Your task to perform on an android device: turn on javascript in the chrome app Image 0: 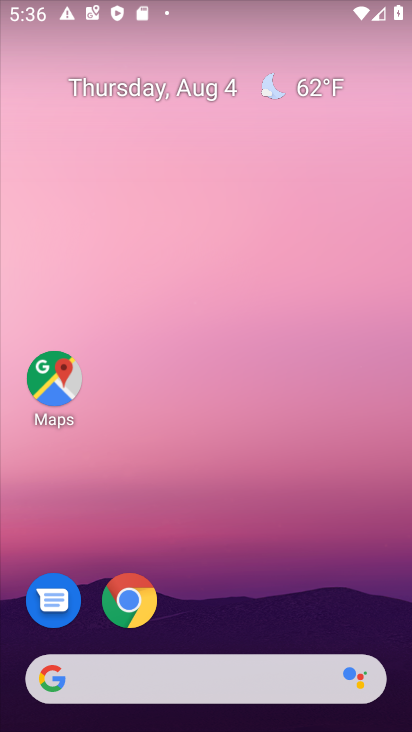
Step 0: click (124, 598)
Your task to perform on an android device: turn on javascript in the chrome app Image 1: 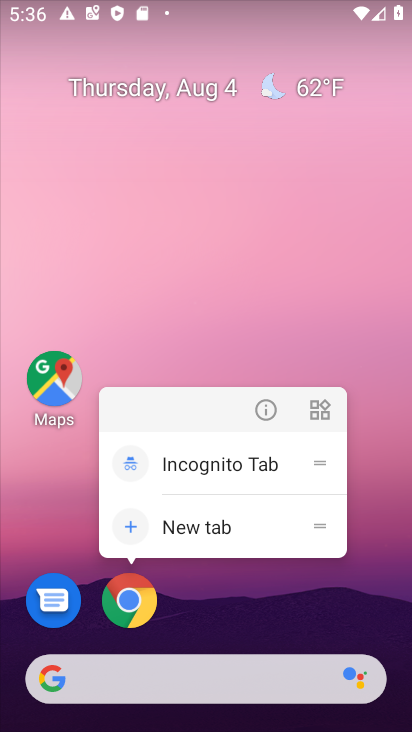
Step 1: click (136, 604)
Your task to perform on an android device: turn on javascript in the chrome app Image 2: 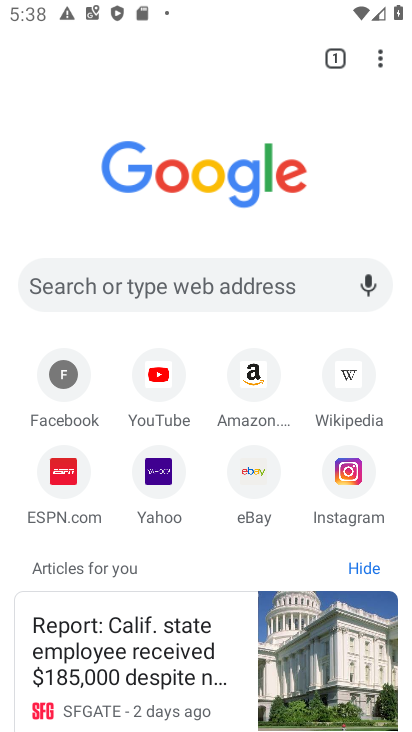
Step 2: drag from (382, 55) to (196, 502)
Your task to perform on an android device: turn on javascript in the chrome app Image 3: 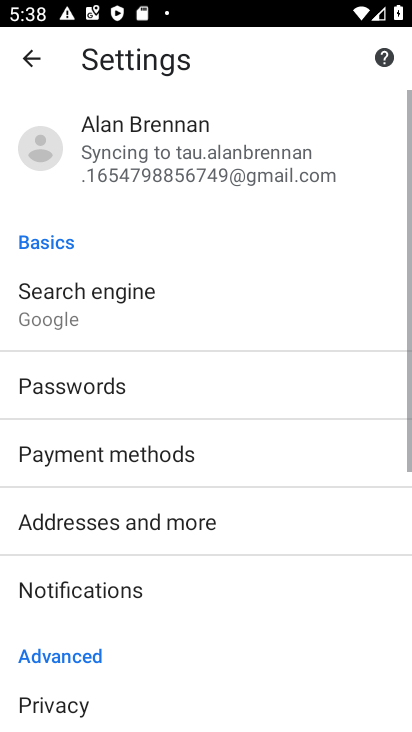
Step 3: drag from (179, 502) to (278, 76)
Your task to perform on an android device: turn on javascript in the chrome app Image 4: 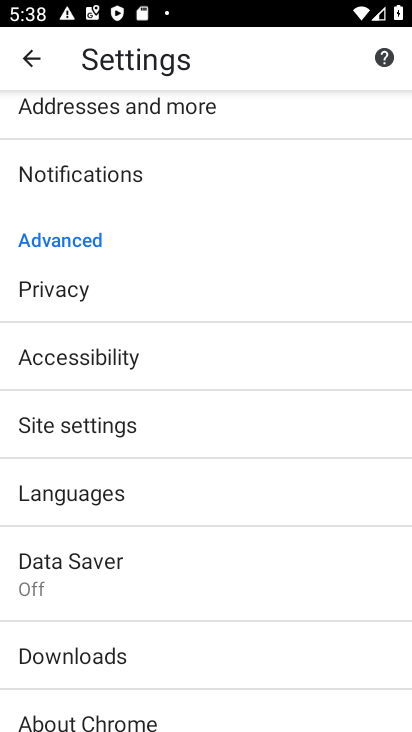
Step 4: click (107, 424)
Your task to perform on an android device: turn on javascript in the chrome app Image 5: 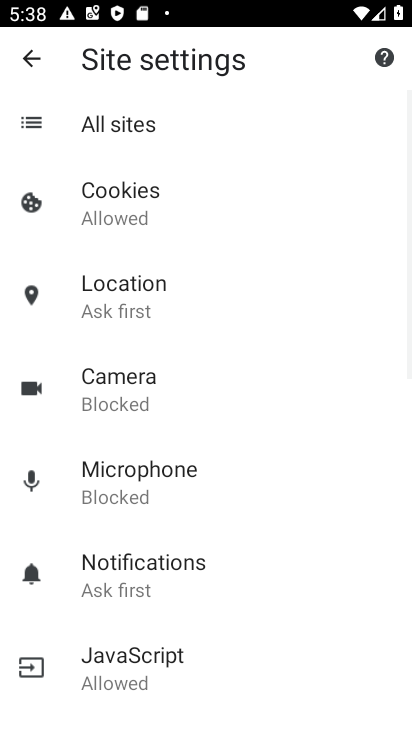
Step 5: click (135, 654)
Your task to perform on an android device: turn on javascript in the chrome app Image 6: 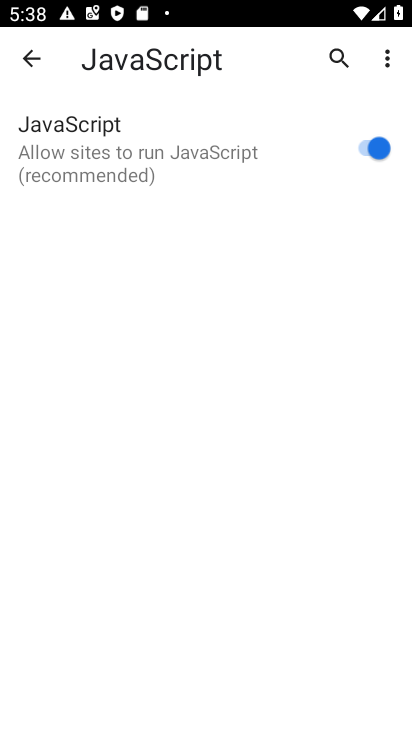
Step 6: task complete